Your task to perform on an android device: turn off airplane mode Image 0: 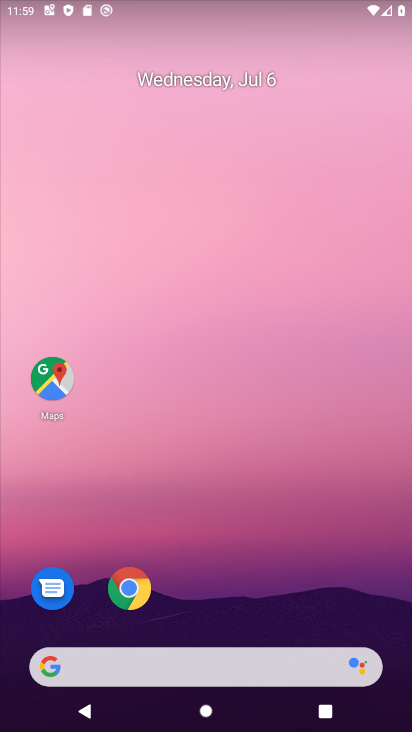
Step 0: click (230, 708)
Your task to perform on an android device: turn off airplane mode Image 1: 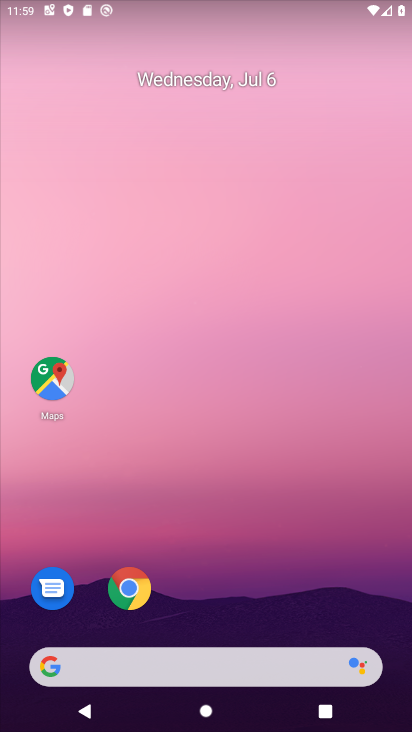
Step 1: drag from (186, 168) to (178, 94)
Your task to perform on an android device: turn off airplane mode Image 2: 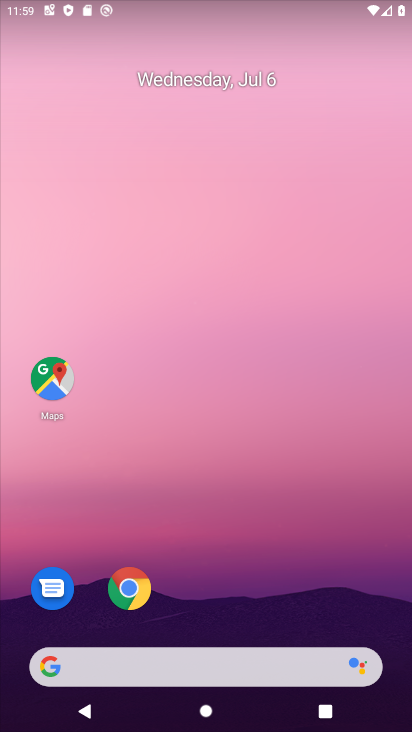
Step 2: drag from (243, 593) to (220, 102)
Your task to perform on an android device: turn off airplane mode Image 3: 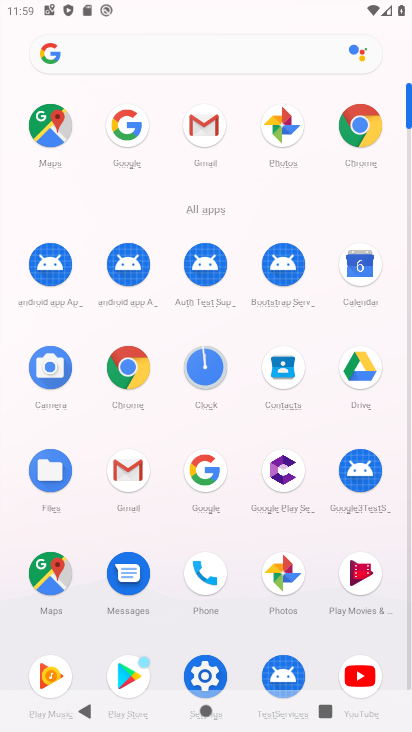
Step 3: click (203, 678)
Your task to perform on an android device: turn off airplane mode Image 4: 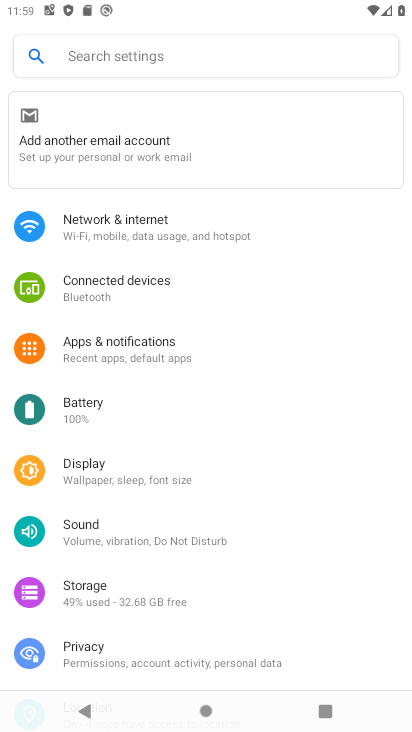
Step 4: click (115, 232)
Your task to perform on an android device: turn off airplane mode Image 5: 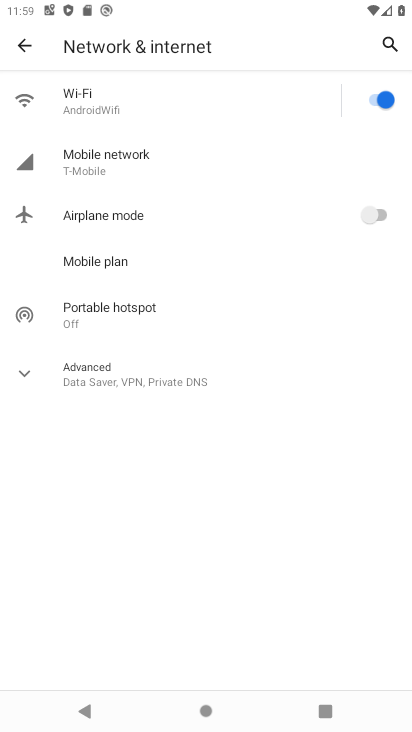
Step 5: task complete